Your task to perform on an android device: add a contact in the contacts app Image 0: 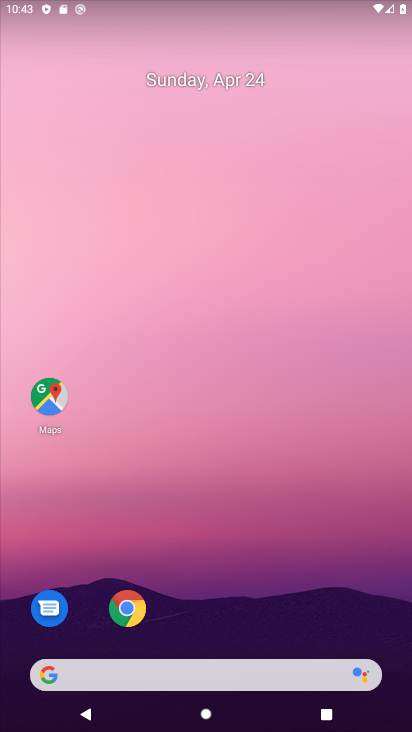
Step 0: drag from (305, 498) to (213, 12)
Your task to perform on an android device: add a contact in the contacts app Image 1: 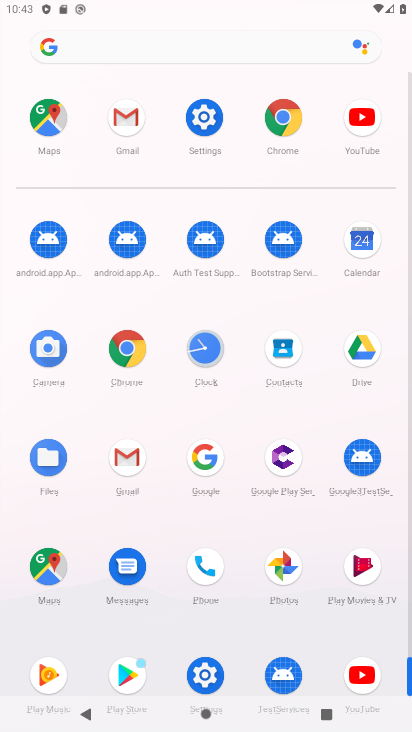
Step 1: click (279, 348)
Your task to perform on an android device: add a contact in the contacts app Image 2: 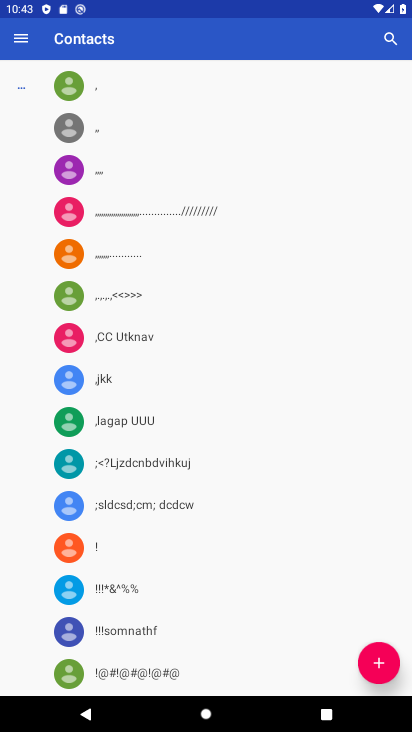
Step 2: click (376, 671)
Your task to perform on an android device: add a contact in the contacts app Image 3: 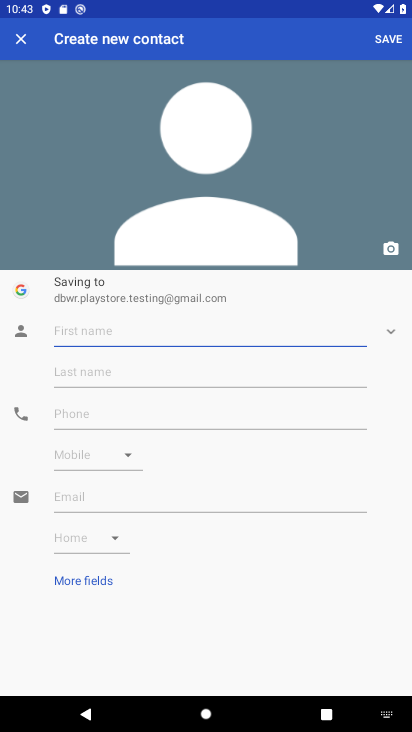
Step 3: click (143, 323)
Your task to perform on an android device: add a contact in the contacts app Image 4: 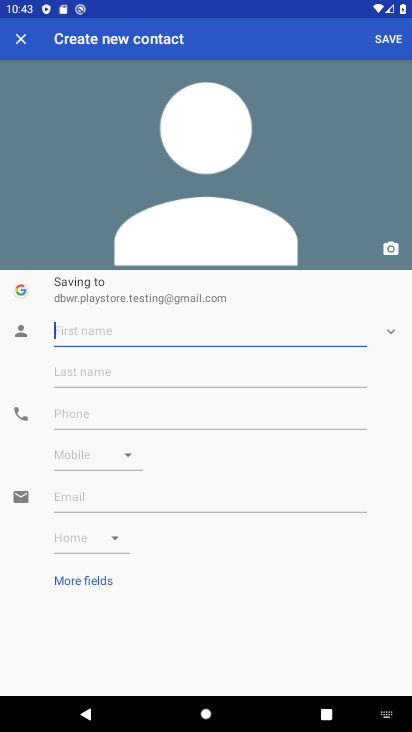
Step 4: type "Zxdsf"
Your task to perform on an android device: add a contact in the contacts app Image 5: 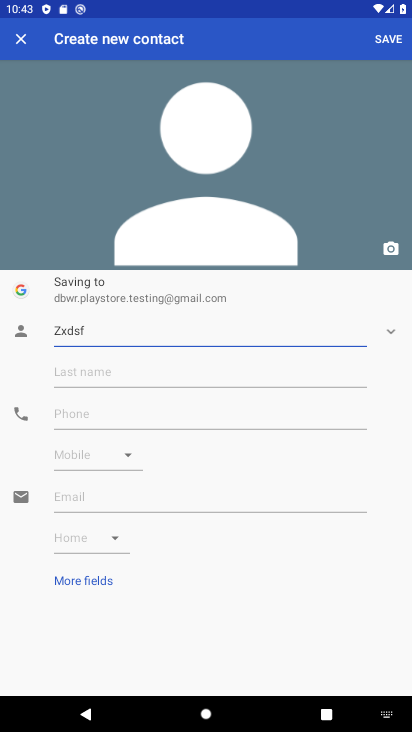
Step 5: click (105, 410)
Your task to perform on an android device: add a contact in the contacts app Image 6: 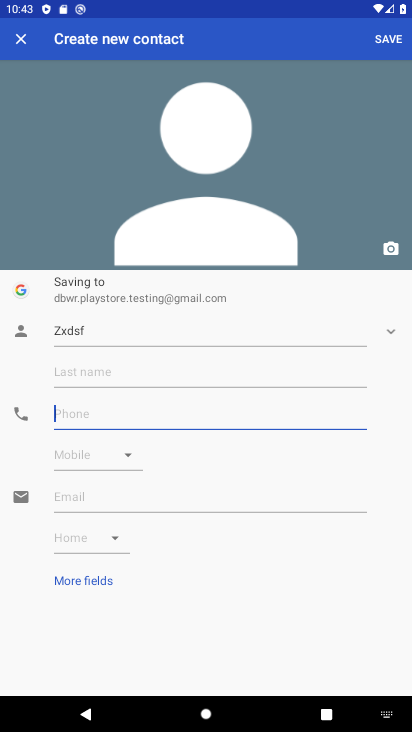
Step 6: type "666787558778867"
Your task to perform on an android device: add a contact in the contacts app Image 7: 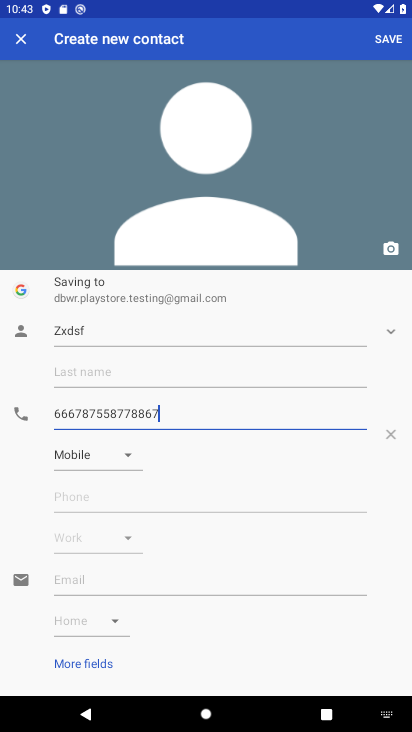
Step 7: type ""
Your task to perform on an android device: add a contact in the contacts app Image 8: 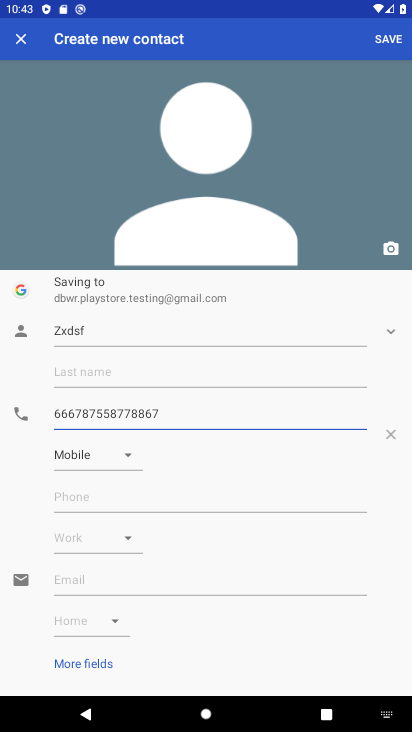
Step 8: click (381, 29)
Your task to perform on an android device: add a contact in the contacts app Image 9: 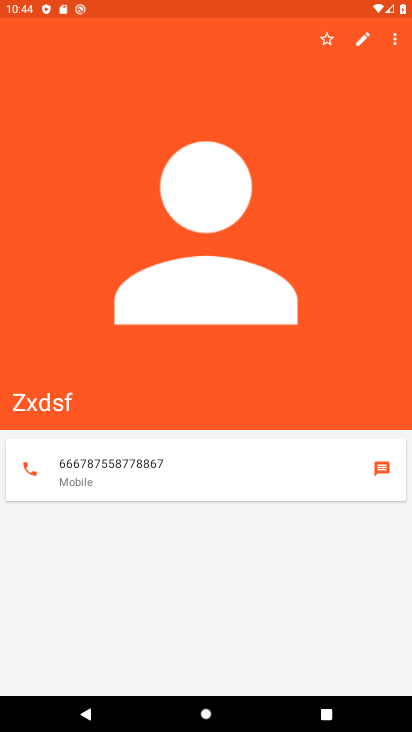
Step 9: task complete